Your task to perform on an android device: Open the phone app and click the voicemail tab. Image 0: 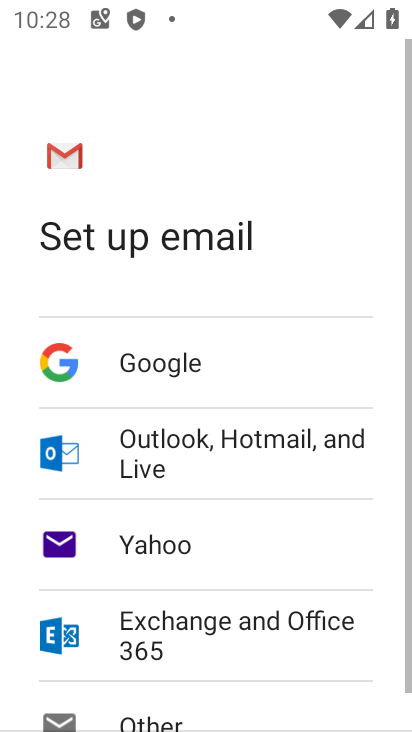
Step 0: press home button
Your task to perform on an android device: Open the phone app and click the voicemail tab. Image 1: 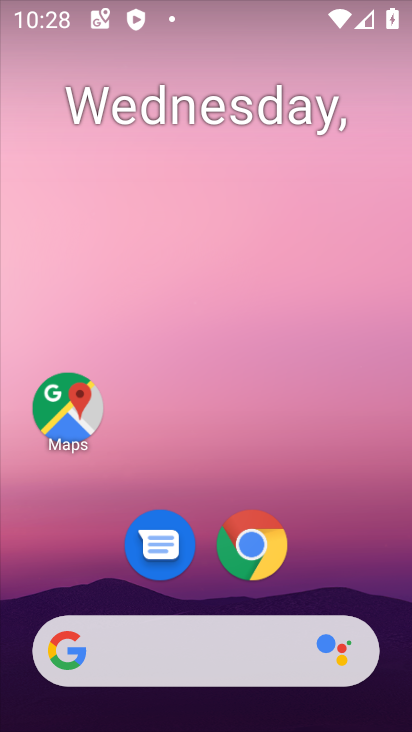
Step 1: drag from (211, 600) to (201, 232)
Your task to perform on an android device: Open the phone app and click the voicemail tab. Image 2: 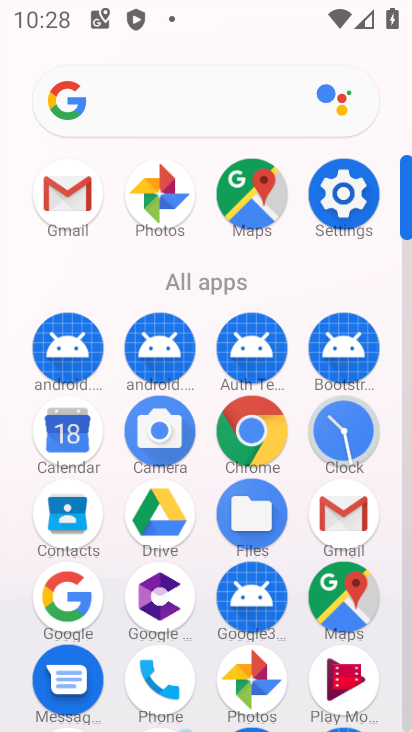
Step 2: click (177, 672)
Your task to perform on an android device: Open the phone app and click the voicemail tab. Image 3: 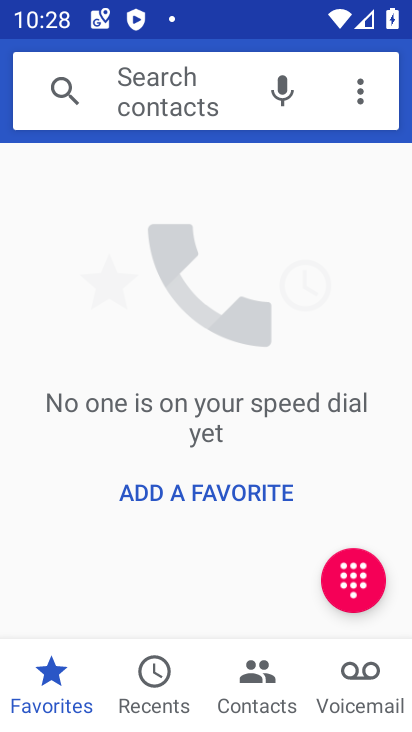
Step 3: click (353, 653)
Your task to perform on an android device: Open the phone app and click the voicemail tab. Image 4: 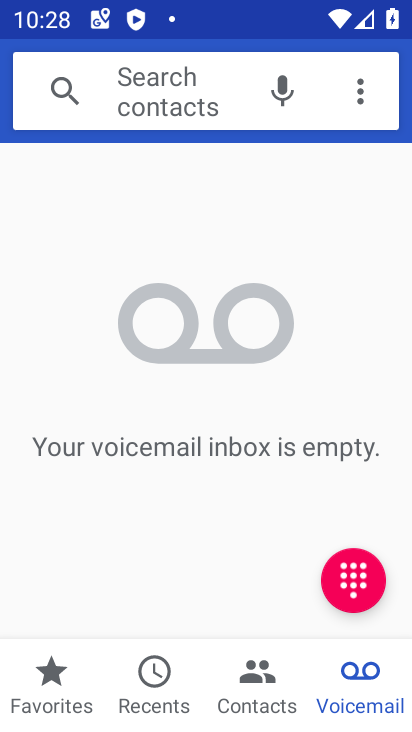
Step 4: task complete